Your task to perform on an android device: Go to calendar. Show me events next week Image 0: 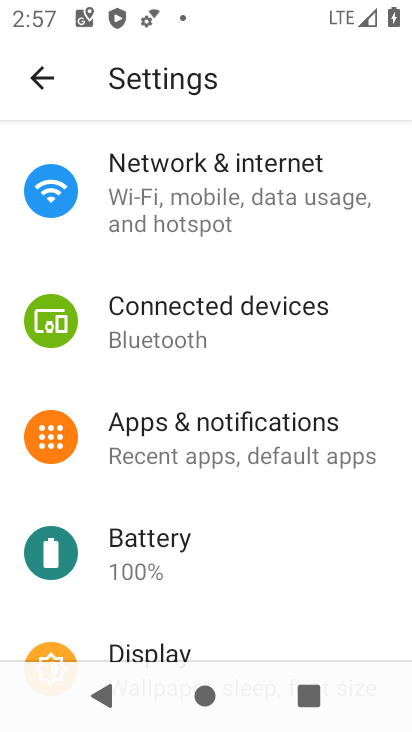
Step 0: task complete